Your task to perform on an android device: allow cookies in the chrome app Image 0: 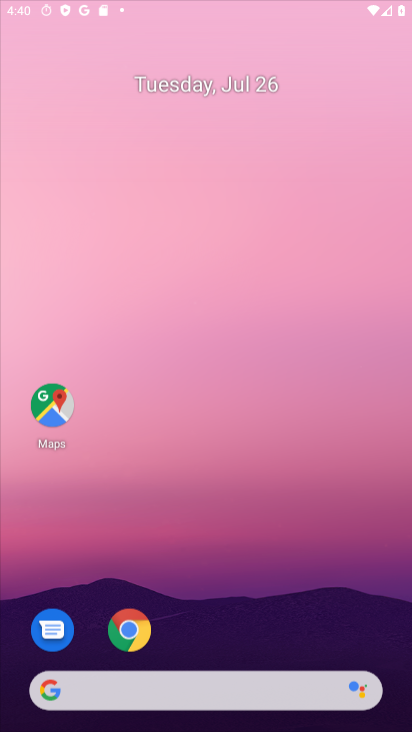
Step 0: drag from (280, 605) to (236, 87)
Your task to perform on an android device: allow cookies in the chrome app Image 1: 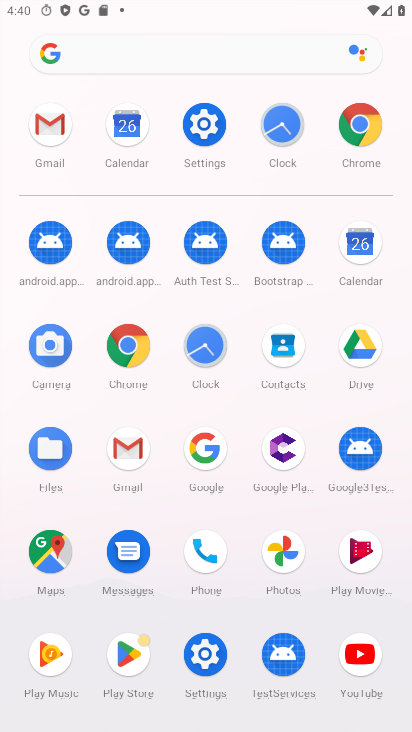
Step 1: click (355, 119)
Your task to perform on an android device: allow cookies in the chrome app Image 2: 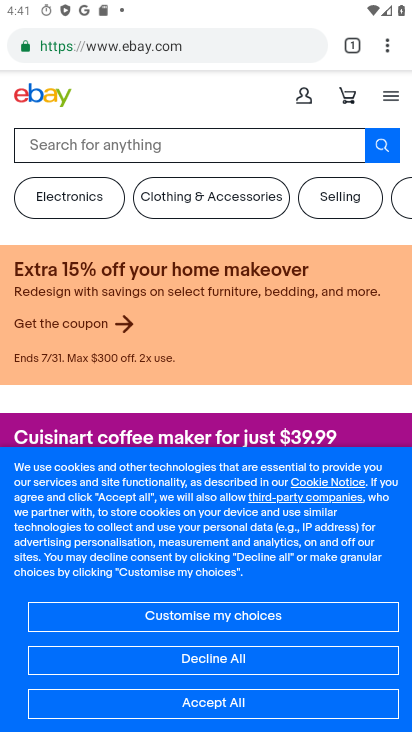
Step 2: drag from (391, 42) to (273, 556)
Your task to perform on an android device: allow cookies in the chrome app Image 3: 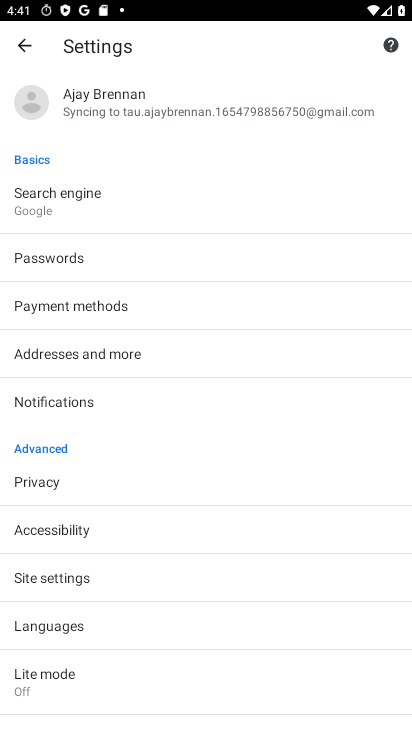
Step 3: drag from (232, 594) to (271, 276)
Your task to perform on an android device: allow cookies in the chrome app Image 4: 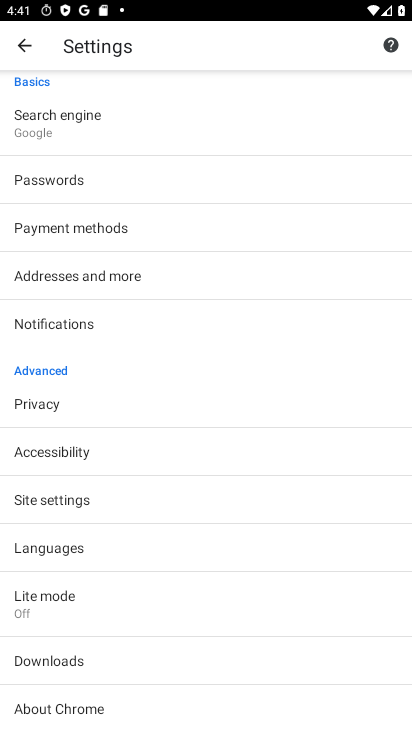
Step 4: click (69, 508)
Your task to perform on an android device: allow cookies in the chrome app Image 5: 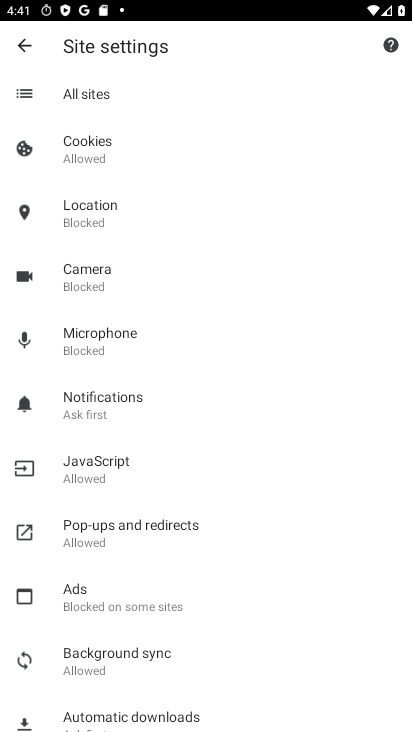
Step 5: drag from (258, 628) to (253, 319)
Your task to perform on an android device: allow cookies in the chrome app Image 6: 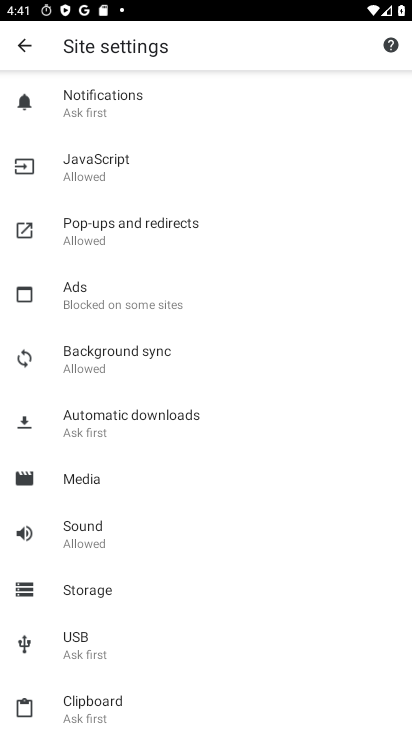
Step 6: drag from (183, 249) to (238, 533)
Your task to perform on an android device: allow cookies in the chrome app Image 7: 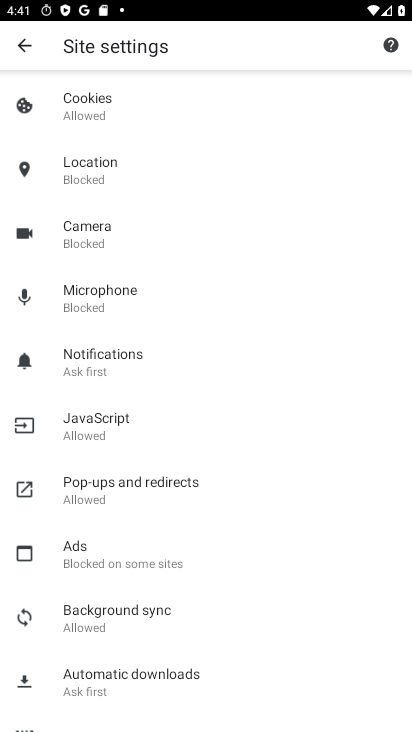
Step 7: click (91, 111)
Your task to perform on an android device: allow cookies in the chrome app Image 8: 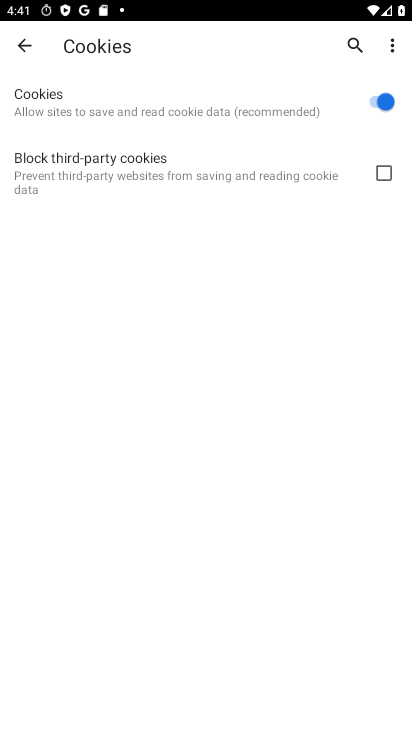
Step 8: task complete